Your task to perform on an android device: Go to accessibility settings Image 0: 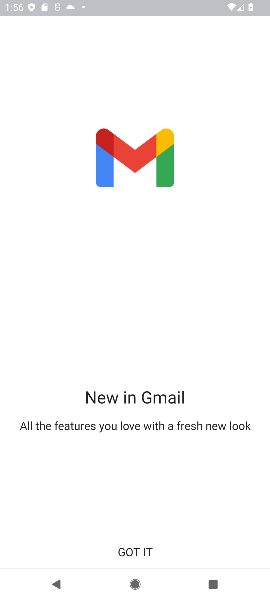
Step 0: click (144, 558)
Your task to perform on an android device: Go to accessibility settings Image 1: 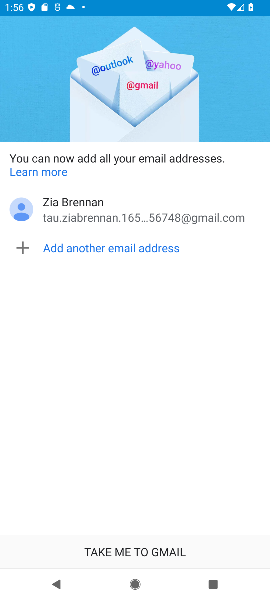
Step 1: click (144, 546)
Your task to perform on an android device: Go to accessibility settings Image 2: 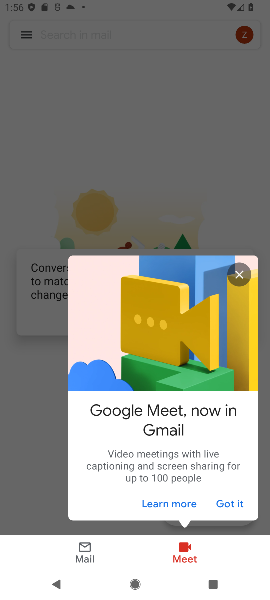
Step 2: press home button
Your task to perform on an android device: Go to accessibility settings Image 3: 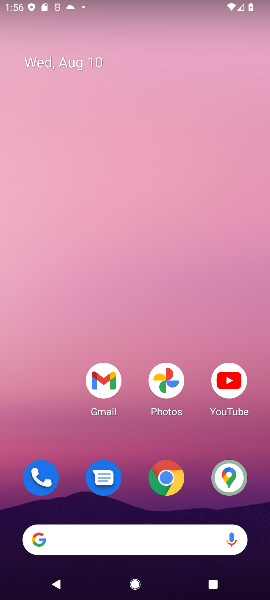
Step 3: drag from (174, 319) to (156, 126)
Your task to perform on an android device: Go to accessibility settings Image 4: 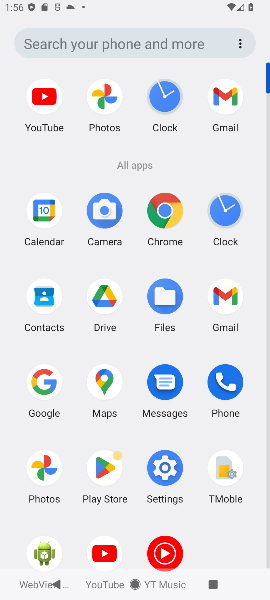
Step 4: click (169, 468)
Your task to perform on an android device: Go to accessibility settings Image 5: 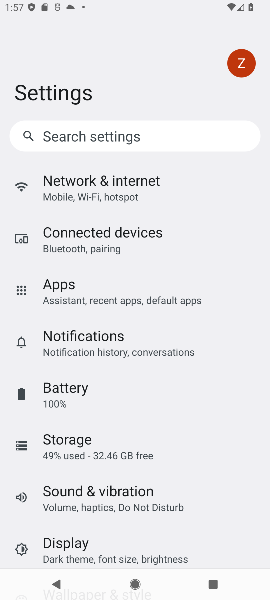
Step 5: drag from (196, 529) to (180, 285)
Your task to perform on an android device: Go to accessibility settings Image 6: 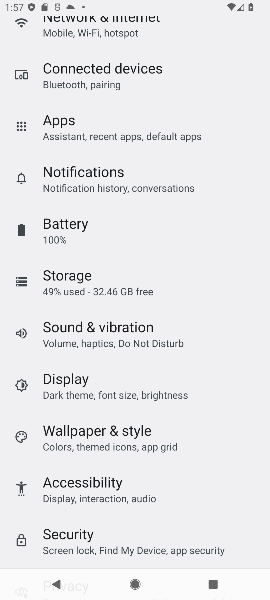
Step 6: click (104, 494)
Your task to perform on an android device: Go to accessibility settings Image 7: 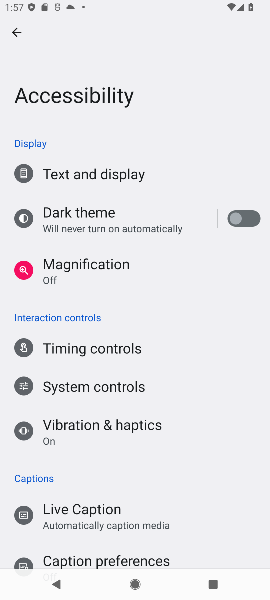
Step 7: task complete